Your task to perform on an android device: check data usage Image 0: 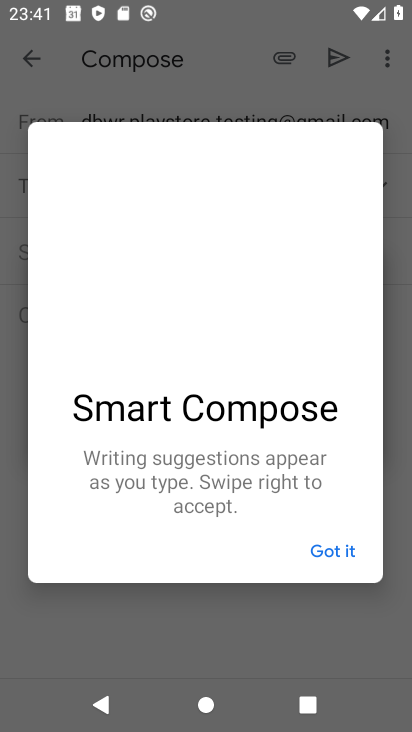
Step 0: press home button
Your task to perform on an android device: check data usage Image 1: 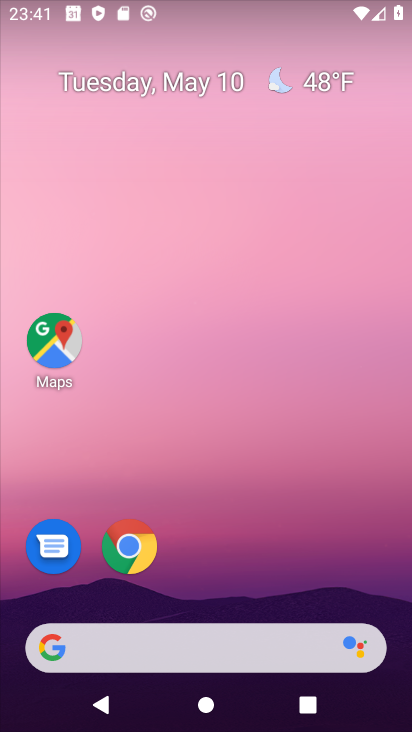
Step 1: drag from (193, 559) to (253, 107)
Your task to perform on an android device: check data usage Image 2: 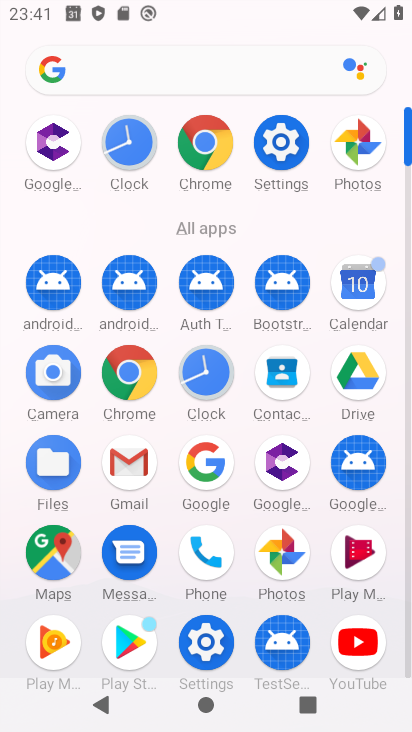
Step 2: click (282, 146)
Your task to perform on an android device: check data usage Image 3: 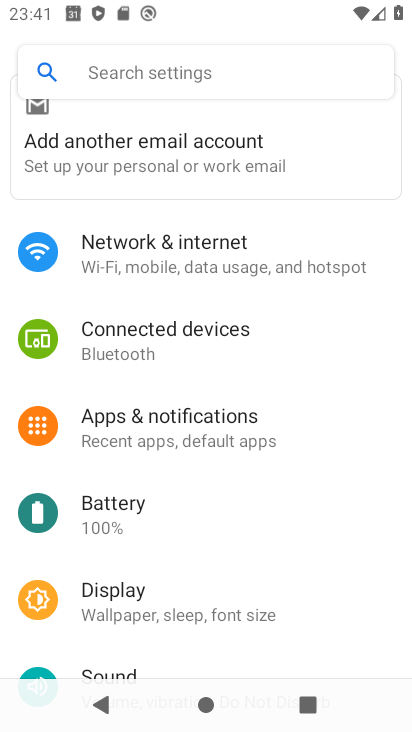
Step 3: click (173, 250)
Your task to perform on an android device: check data usage Image 4: 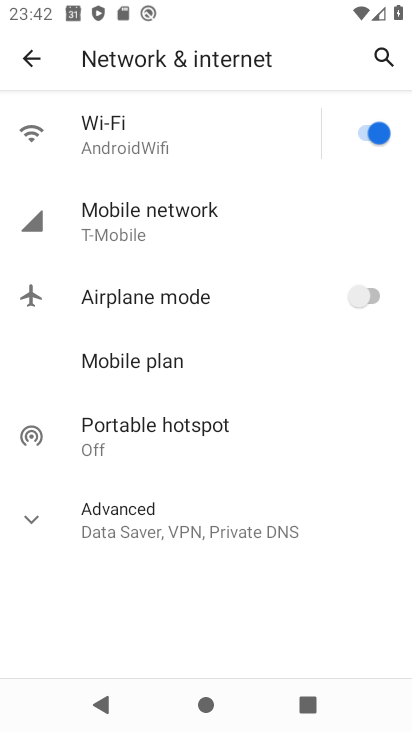
Step 4: click (148, 227)
Your task to perform on an android device: check data usage Image 5: 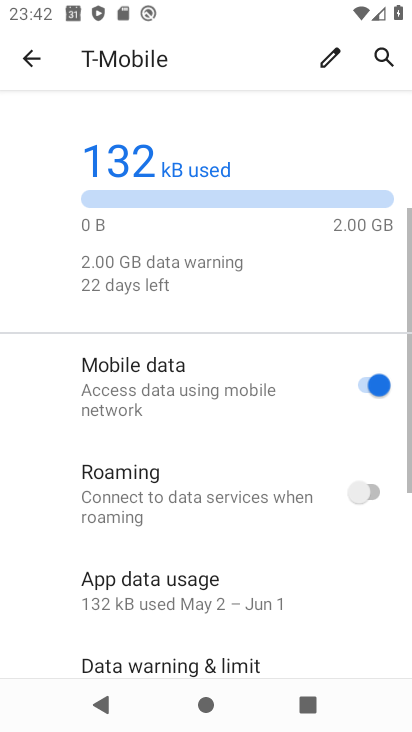
Step 5: drag from (187, 560) to (193, 330)
Your task to perform on an android device: check data usage Image 6: 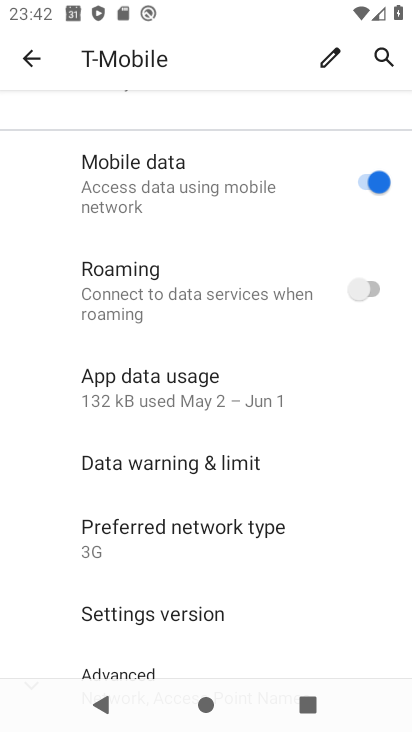
Step 6: click (186, 402)
Your task to perform on an android device: check data usage Image 7: 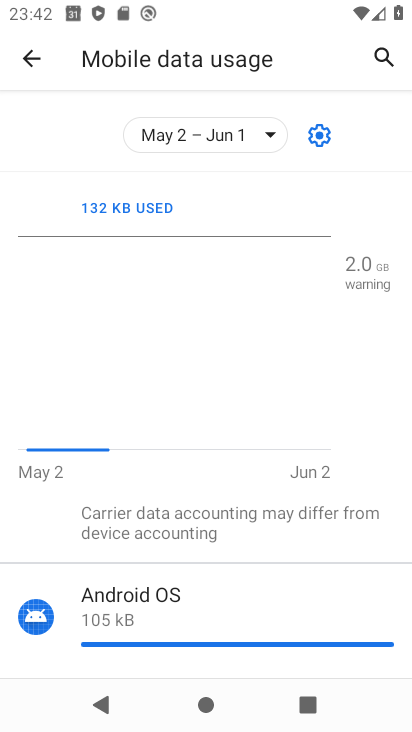
Step 7: task complete